Your task to perform on an android device: allow cookies in the chrome app Image 0: 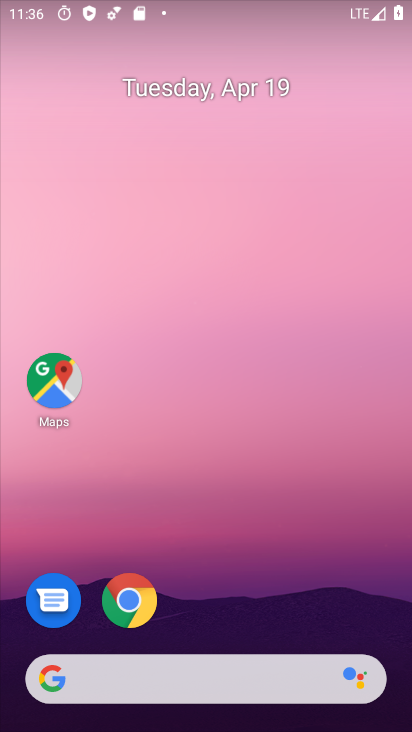
Step 0: click (139, 611)
Your task to perform on an android device: allow cookies in the chrome app Image 1: 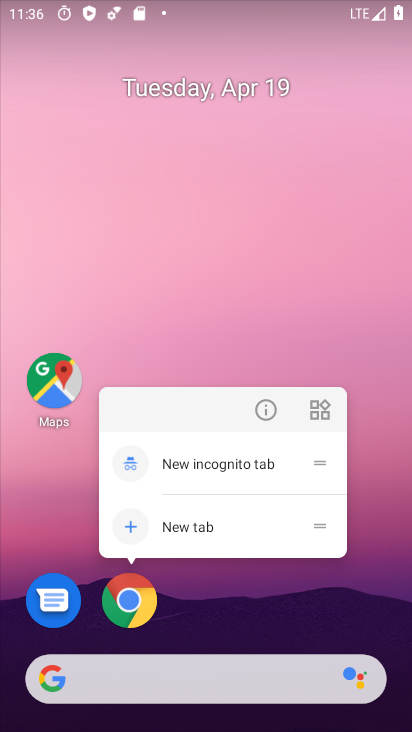
Step 1: click (142, 597)
Your task to perform on an android device: allow cookies in the chrome app Image 2: 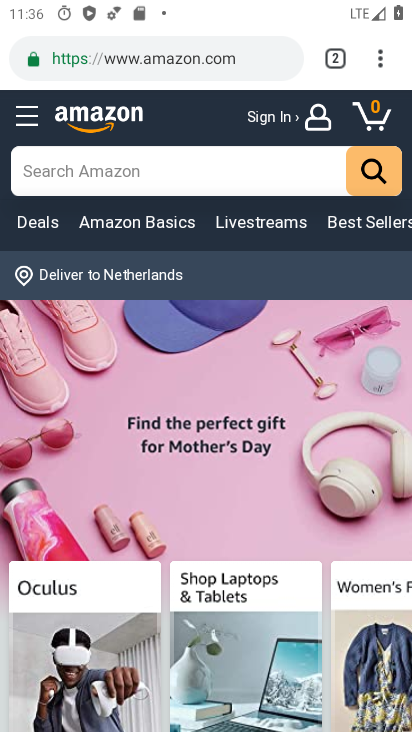
Step 2: click (381, 58)
Your task to perform on an android device: allow cookies in the chrome app Image 3: 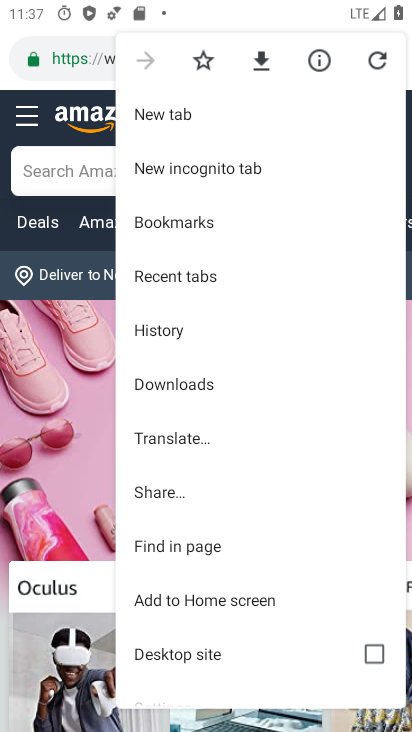
Step 3: drag from (301, 605) to (301, 326)
Your task to perform on an android device: allow cookies in the chrome app Image 4: 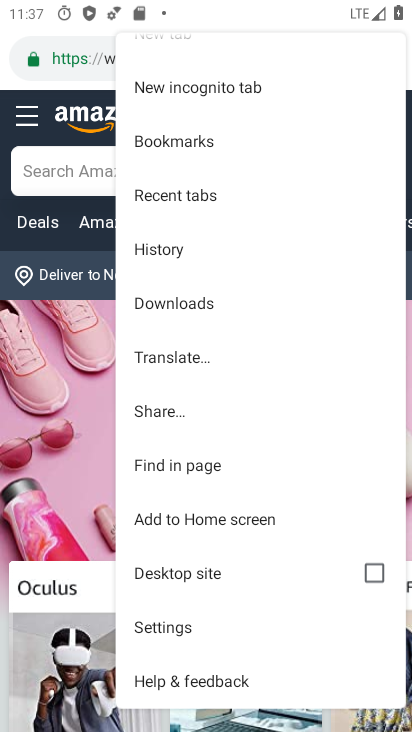
Step 4: click (157, 631)
Your task to perform on an android device: allow cookies in the chrome app Image 5: 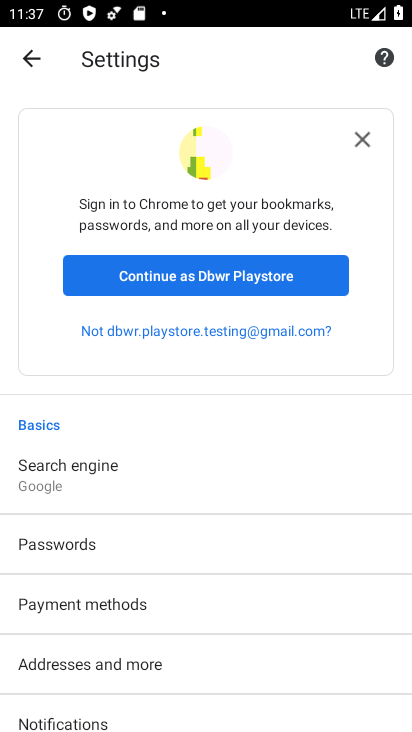
Step 5: drag from (178, 635) to (174, 316)
Your task to perform on an android device: allow cookies in the chrome app Image 6: 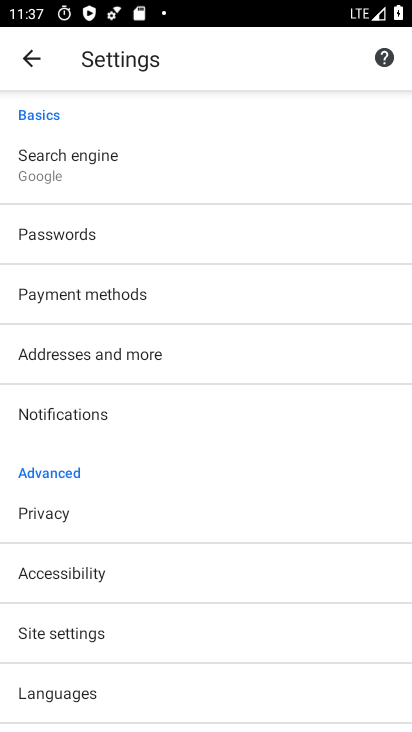
Step 6: click (72, 633)
Your task to perform on an android device: allow cookies in the chrome app Image 7: 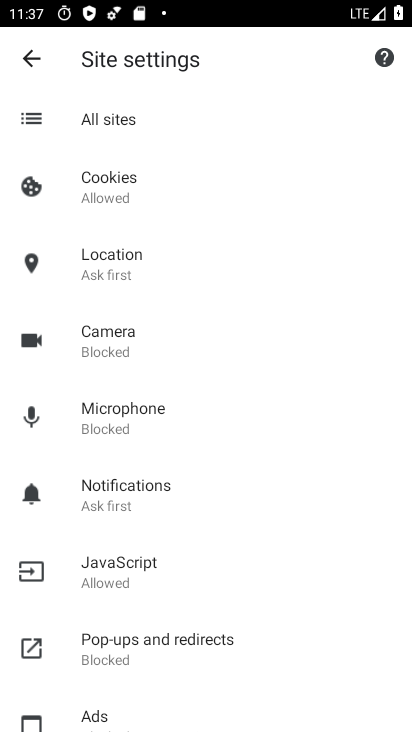
Step 7: click (95, 186)
Your task to perform on an android device: allow cookies in the chrome app Image 8: 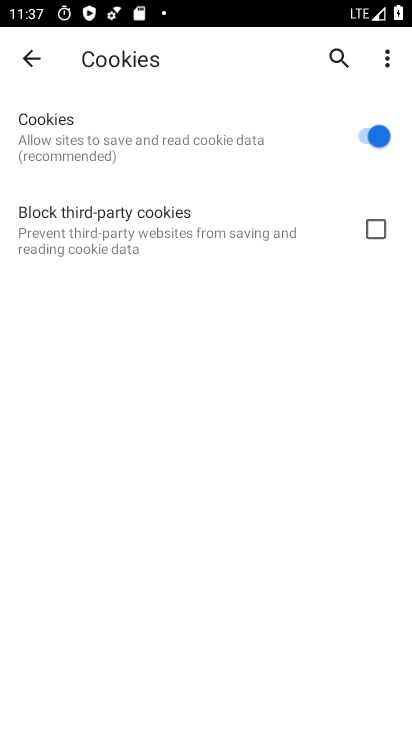
Step 8: task complete